Your task to perform on an android device: Open Chrome and go to the settings page Image 0: 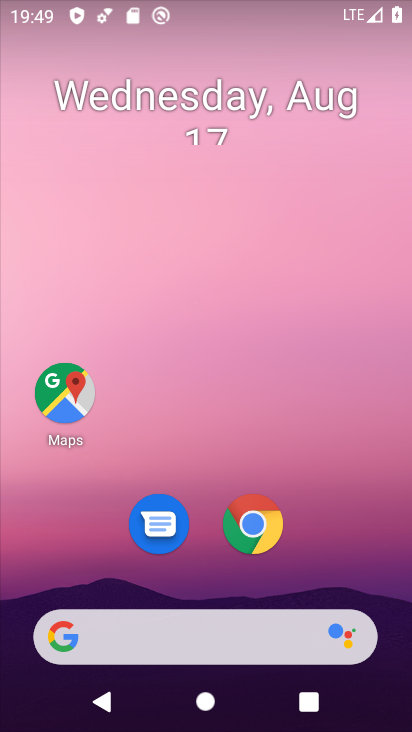
Step 0: click (254, 525)
Your task to perform on an android device: Open Chrome and go to the settings page Image 1: 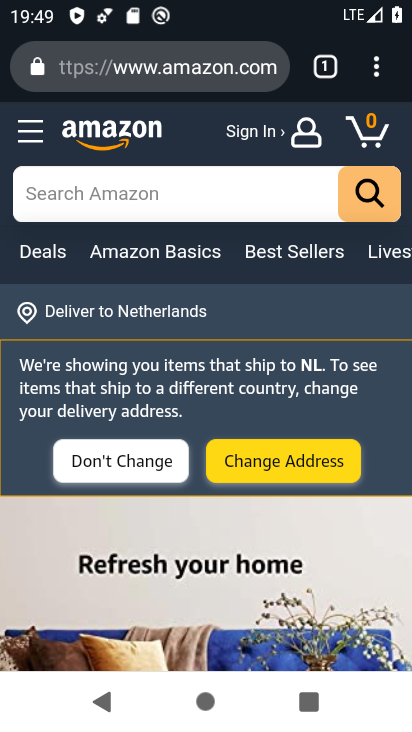
Step 1: click (254, 523)
Your task to perform on an android device: Open Chrome and go to the settings page Image 2: 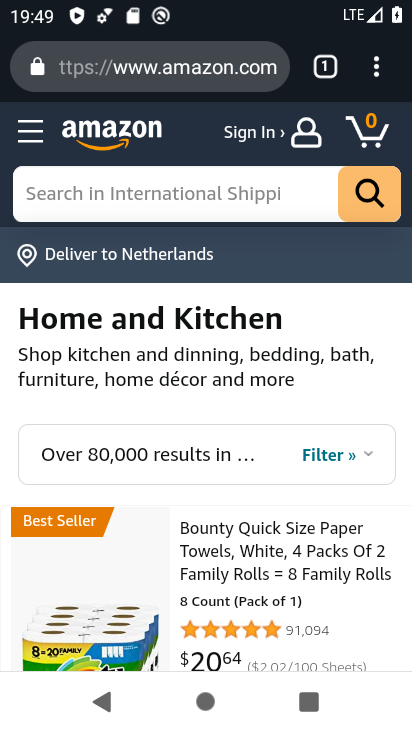
Step 2: click (376, 78)
Your task to perform on an android device: Open Chrome and go to the settings page Image 3: 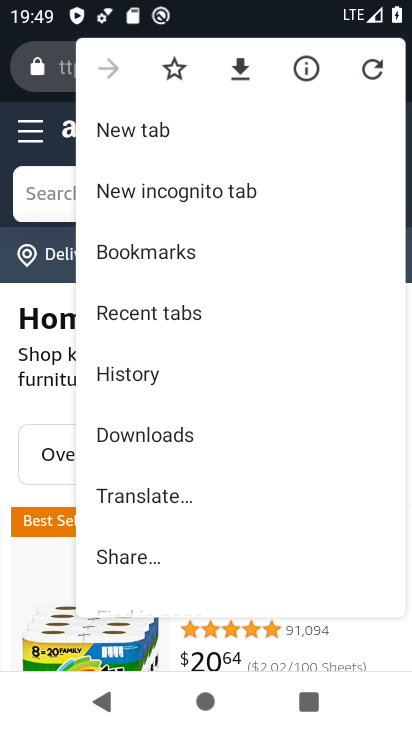
Step 3: drag from (277, 481) to (277, 124)
Your task to perform on an android device: Open Chrome and go to the settings page Image 4: 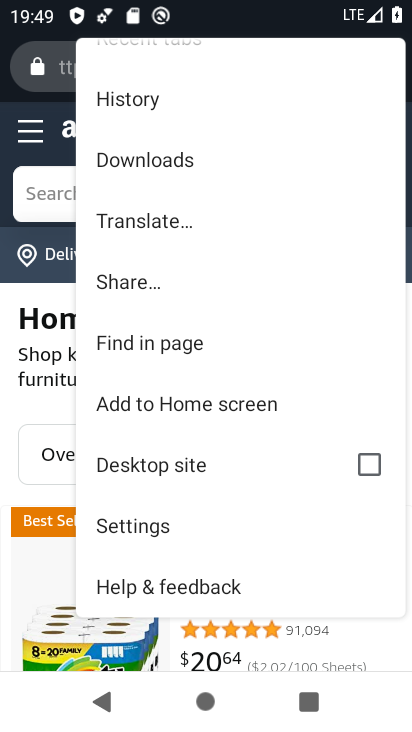
Step 4: click (158, 524)
Your task to perform on an android device: Open Chrome and go to the settings page Image 5: 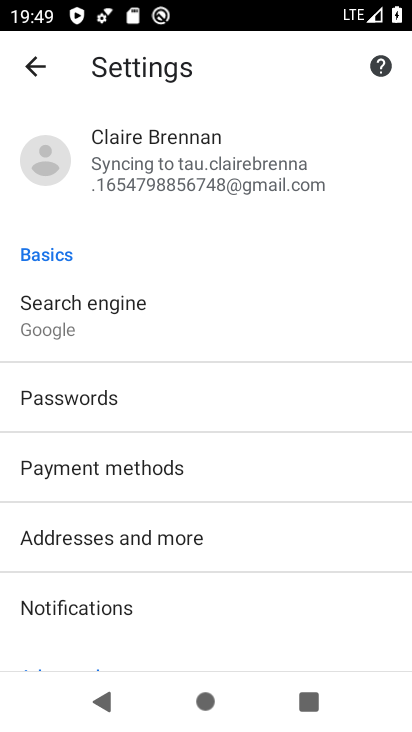
Step 5: task complete